Your task to perform on an android device: turn on sleep mode Image 0: 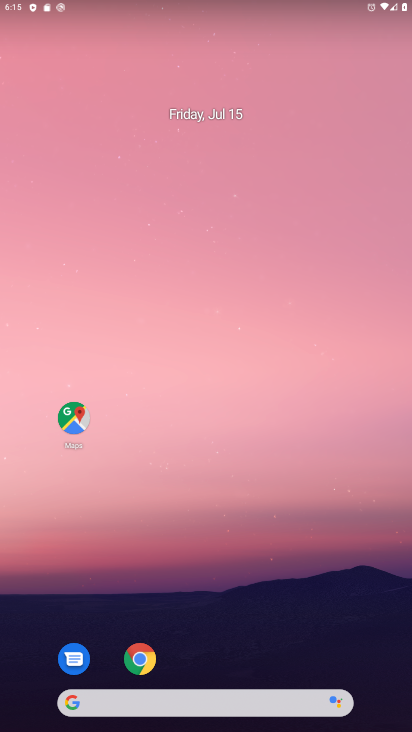
Step 0: drag from (390, 667) to (321, 116)
Your task to perform on an android device: turn on sleep mode Image 1: 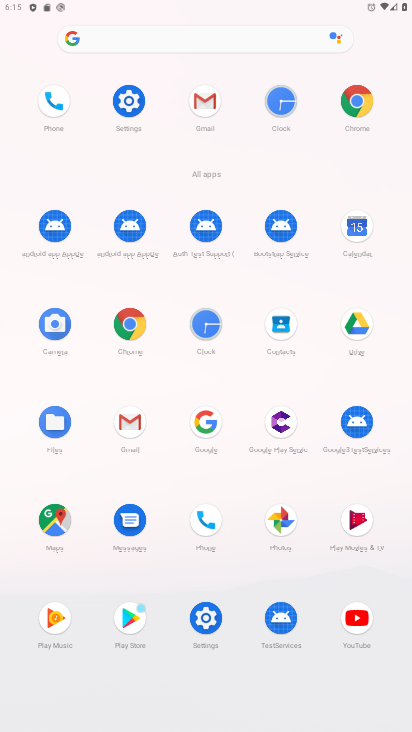
Step 1: click (205, 617)
Your task to perform on an android device: turn on sleep mode Image 2: 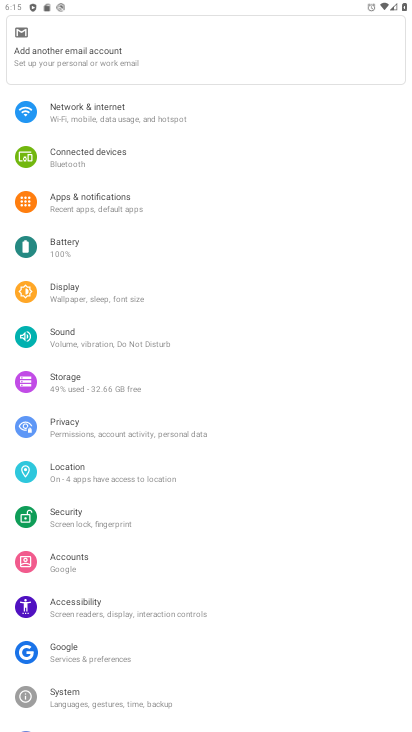
Step 2: click (71, 292)
Your task to perform on an android device: turn on sleep mode Image 3: 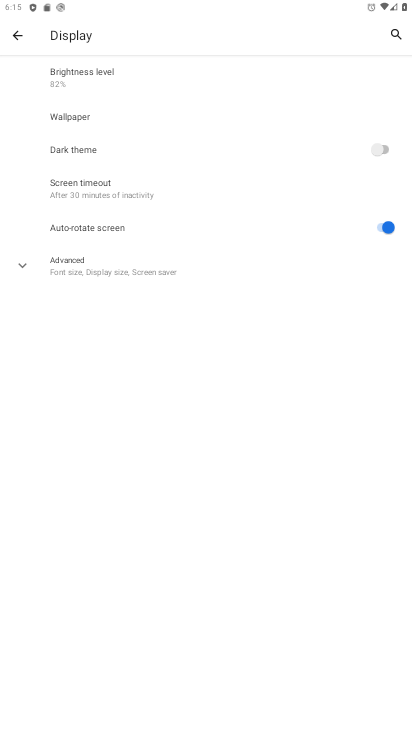
Step 3: click (21, 264)
Your task to perform on an android device: turn on sleep mode Image 4: 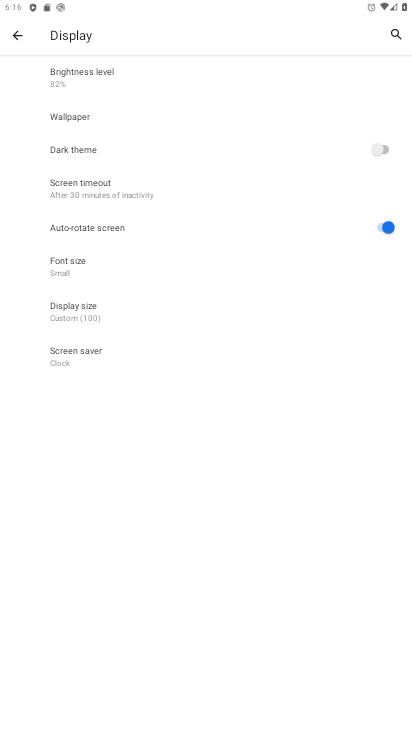
Step 4: task complete